Your task to perform on an android device: Go to location settings Image 0: 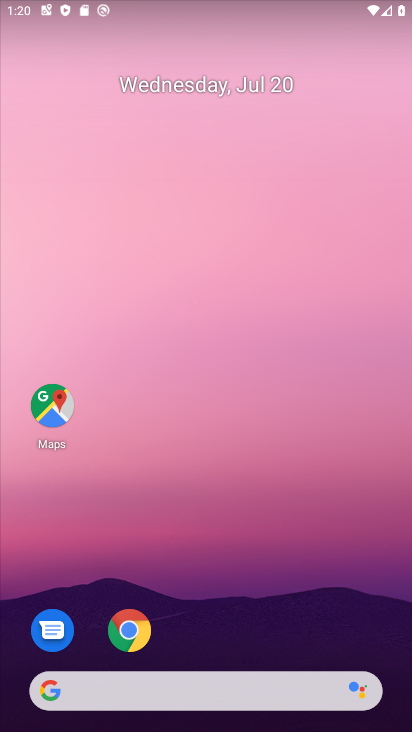
Step 0: drag from (283, 650) to (318, 158)
Your task to perform on an android device: Go to location settings Image 1: 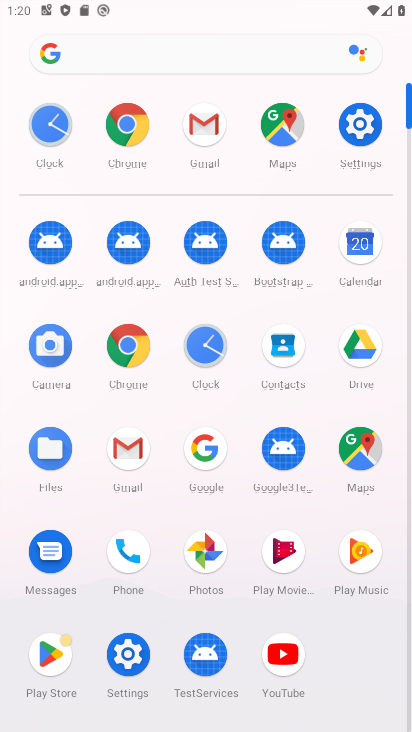
Step 1: click (369, 136)
Your task to perform on an android device: Go to location settings Image 2: 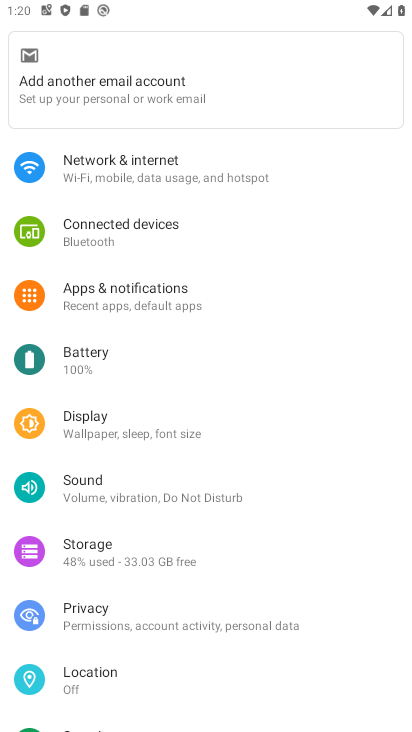
Step 2: drag from (139, 649) to (171, 244)
Your task to perform on an android device: Go to location settings Image 3: 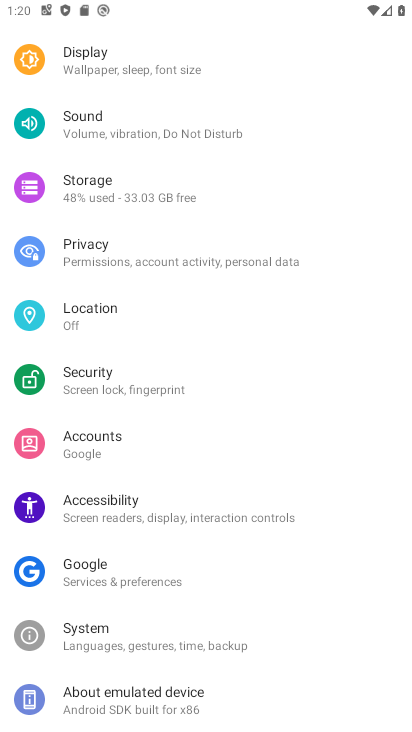
Step 3: click (109, 320)
Your task to perform on an android device: Go to location settings Image 4: 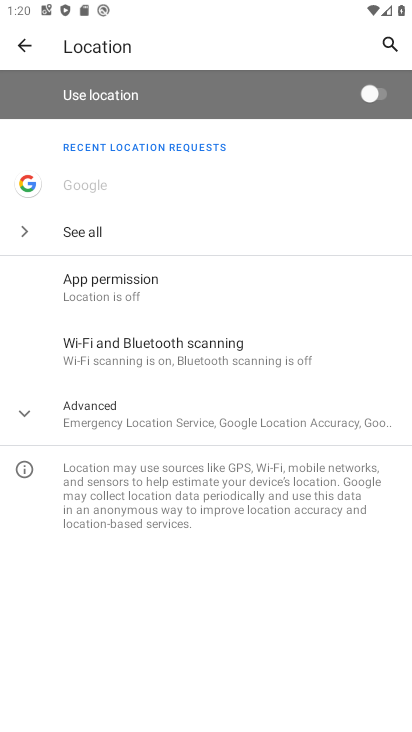
Step 4: task complete